Your task to perform on an android device: turn on the 12-hour format for clock Image 0: 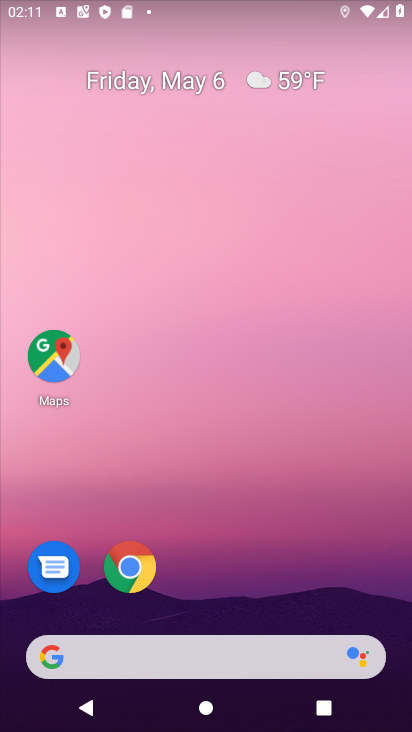
Step 0: drag from (390, 629) to (345, 83)
Your task to perform on an android device: turn on the 12-hour format for clock Image 1: 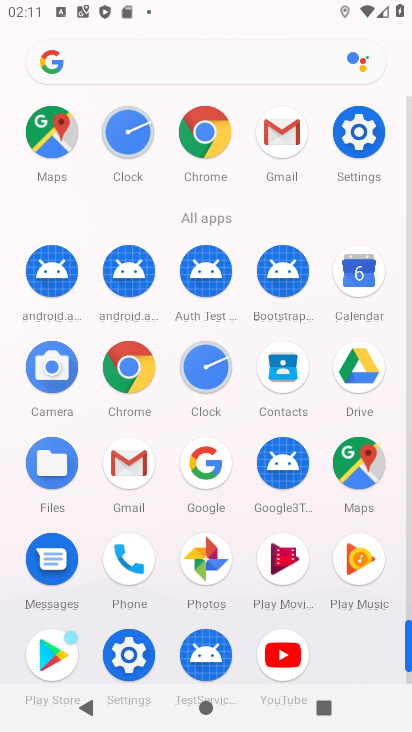
Step 1: click (206, 366)
Your task to perform on an android device: turn on the 12-hour format for clock Image 2: 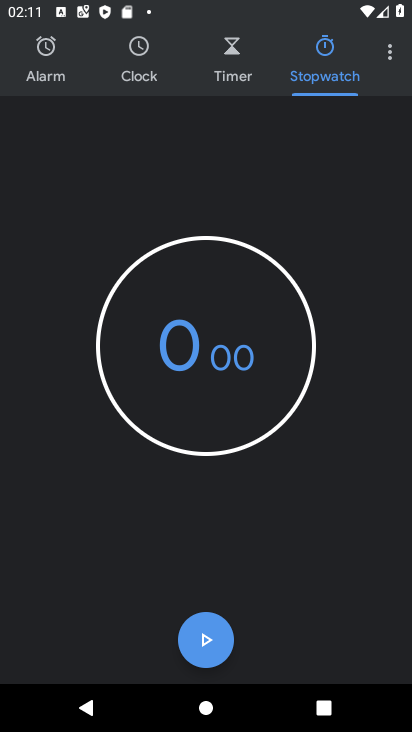
Step 2: click (388, 57)
Your task to perform on an android device: turn on the 12-hour format for clock Image 3: 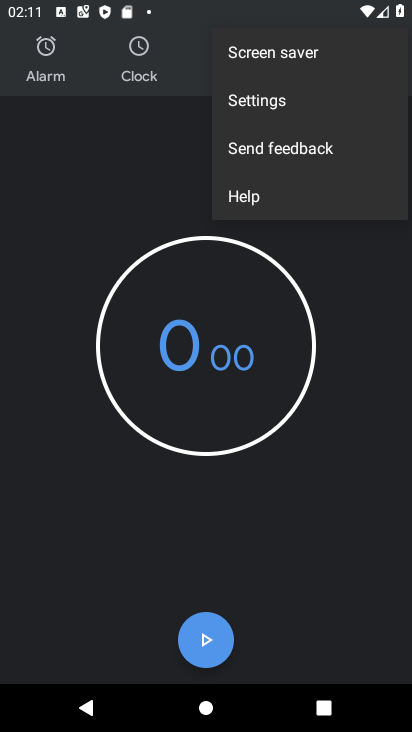
Step 3: click (244, 100)
Your task to perform on an android device: turn on the 12-hour format for clock Image 4: 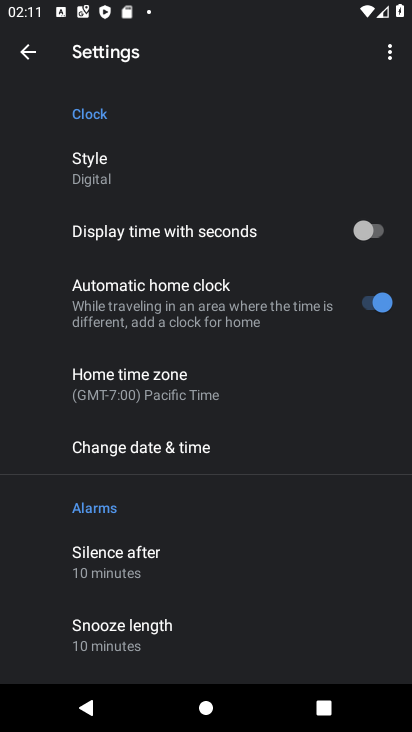
Step 4: click (135, 444)
Your task to perform on an android device: turn on the 12-hour format for clock Image 5: 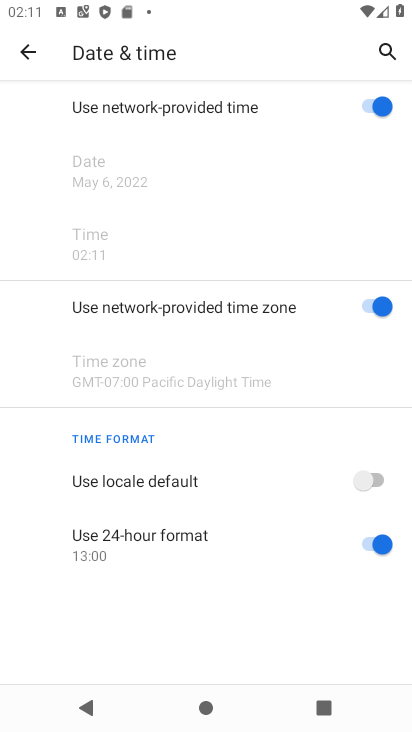
Step 5: click (378, 478)
Your task to perform on an android device: turn on the 12-hour format for clock Image 6: 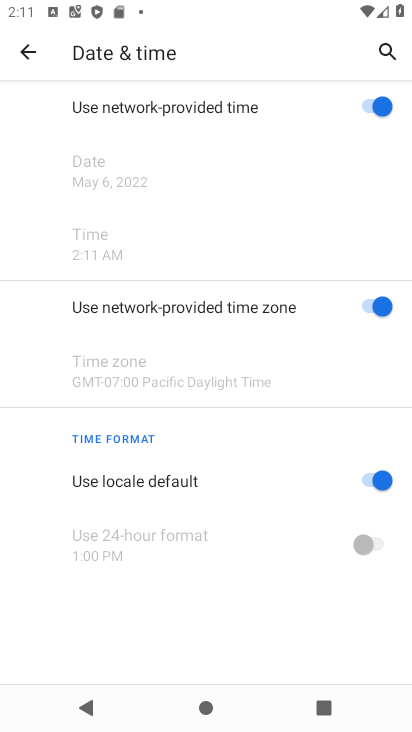
Step 6: task complete